Your task to perform on an android device: Show the shopping cart on bestbuy.com. Image 0: 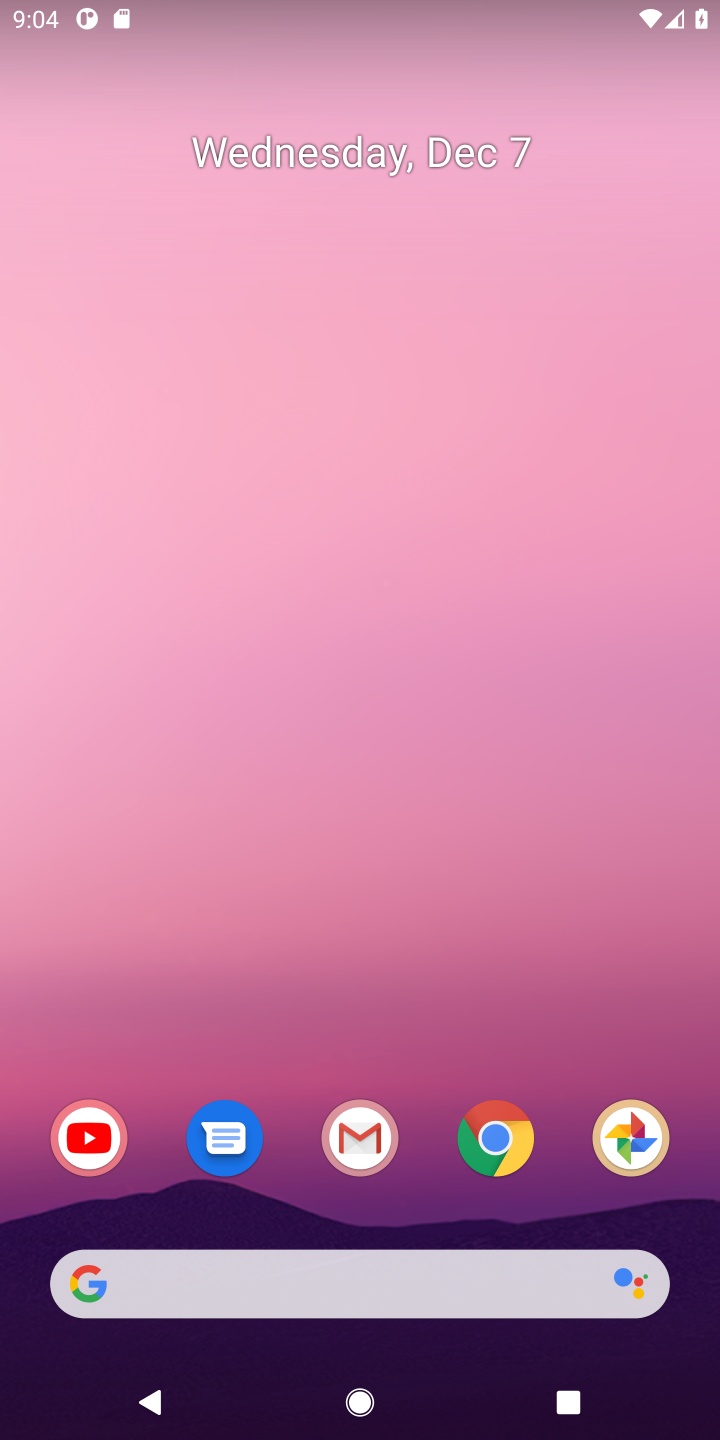
Step 0: press home button
Your task to perform on an android device: Show the shopping cart on bestbuy.com. Image 1: 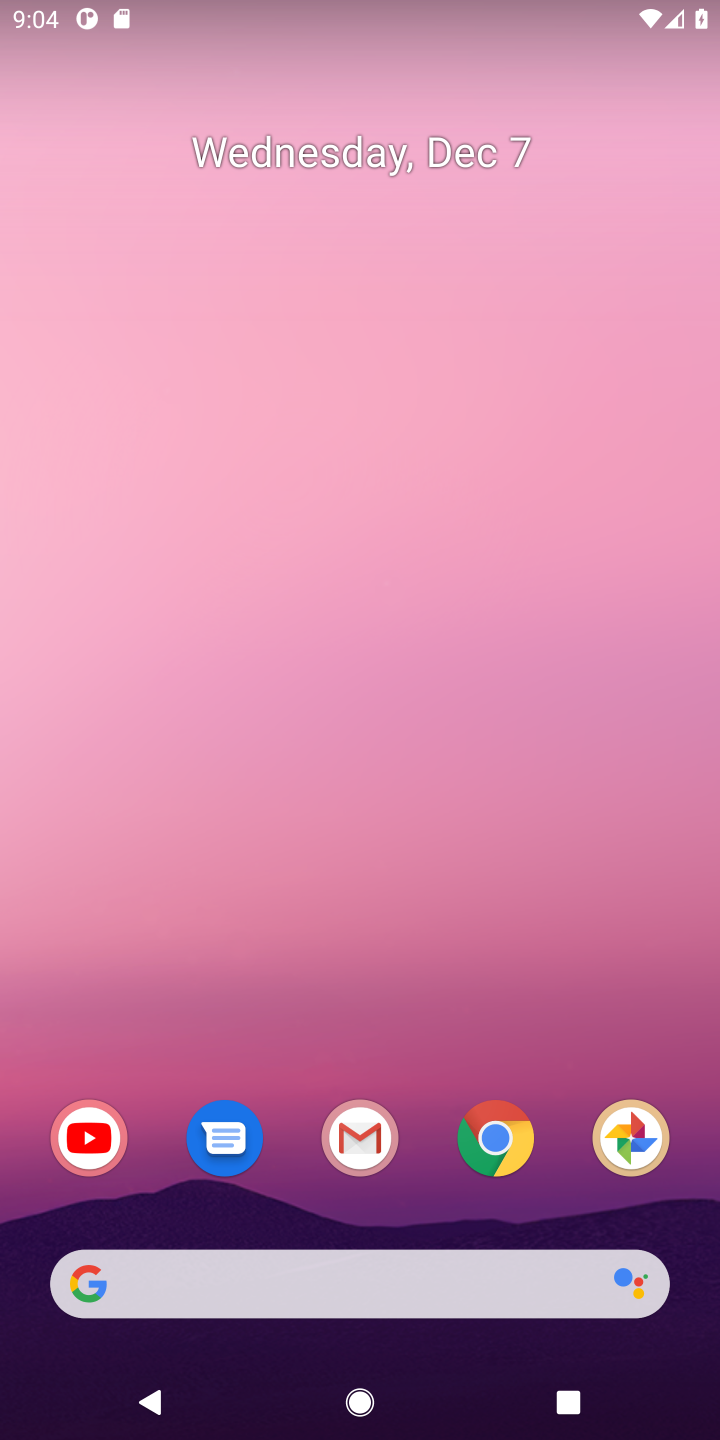
Step 1: click (117, 1287)
Your task to perform on an android device: Show the shopping cart on bestbuy.com. Image 2: 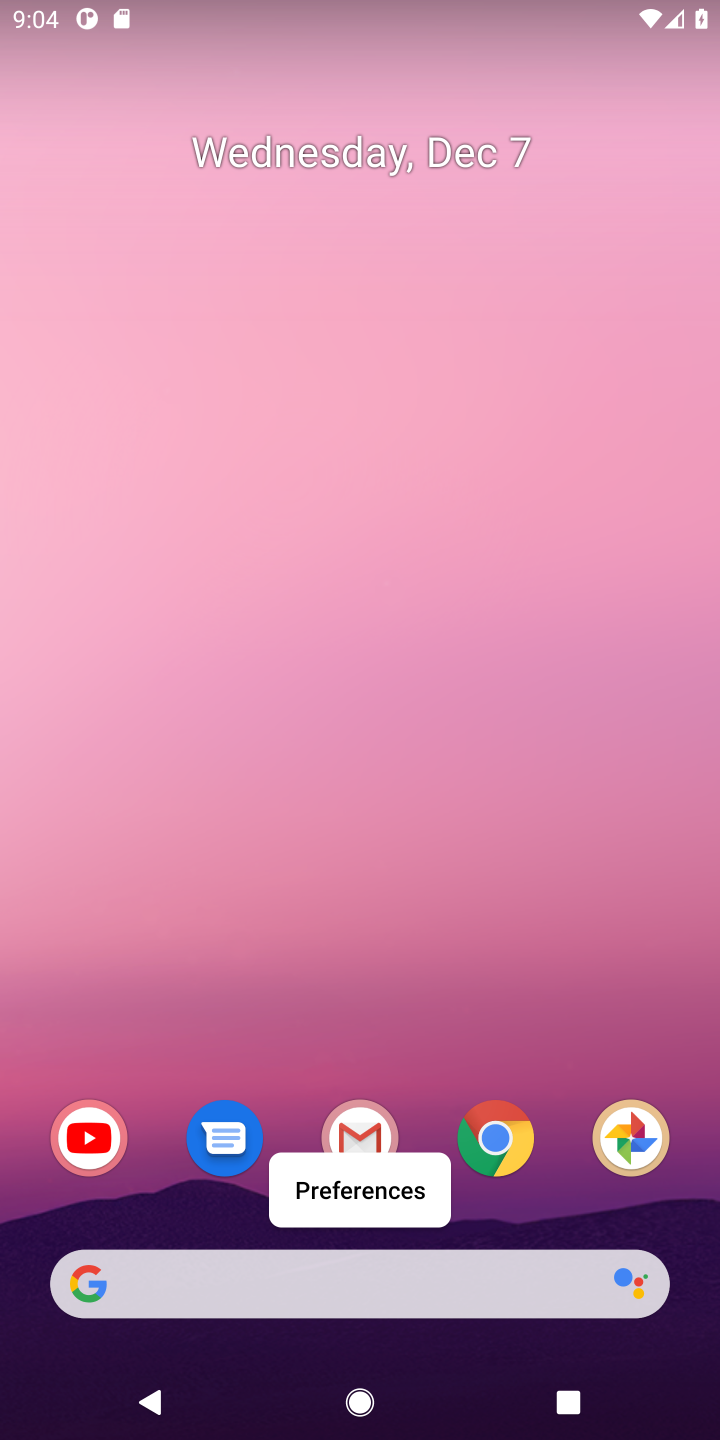
Step 2: click (164, 1291)
Your task to perform on an android device: Show the shopping cart on bestbuy.com. Image 3: 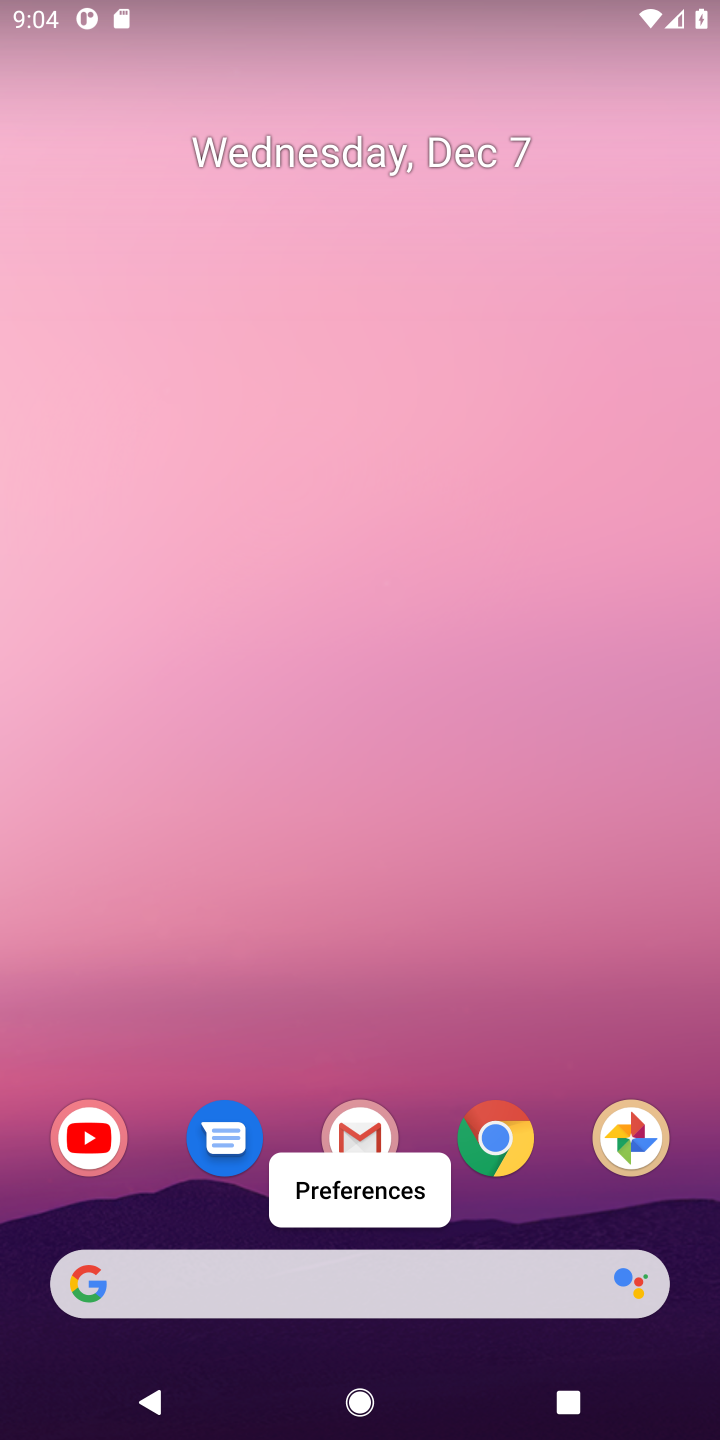
Step 3: click (140, 1293)
Your task to perform on an android device: Show the shopping cart on bestbuy.com. Image 4: 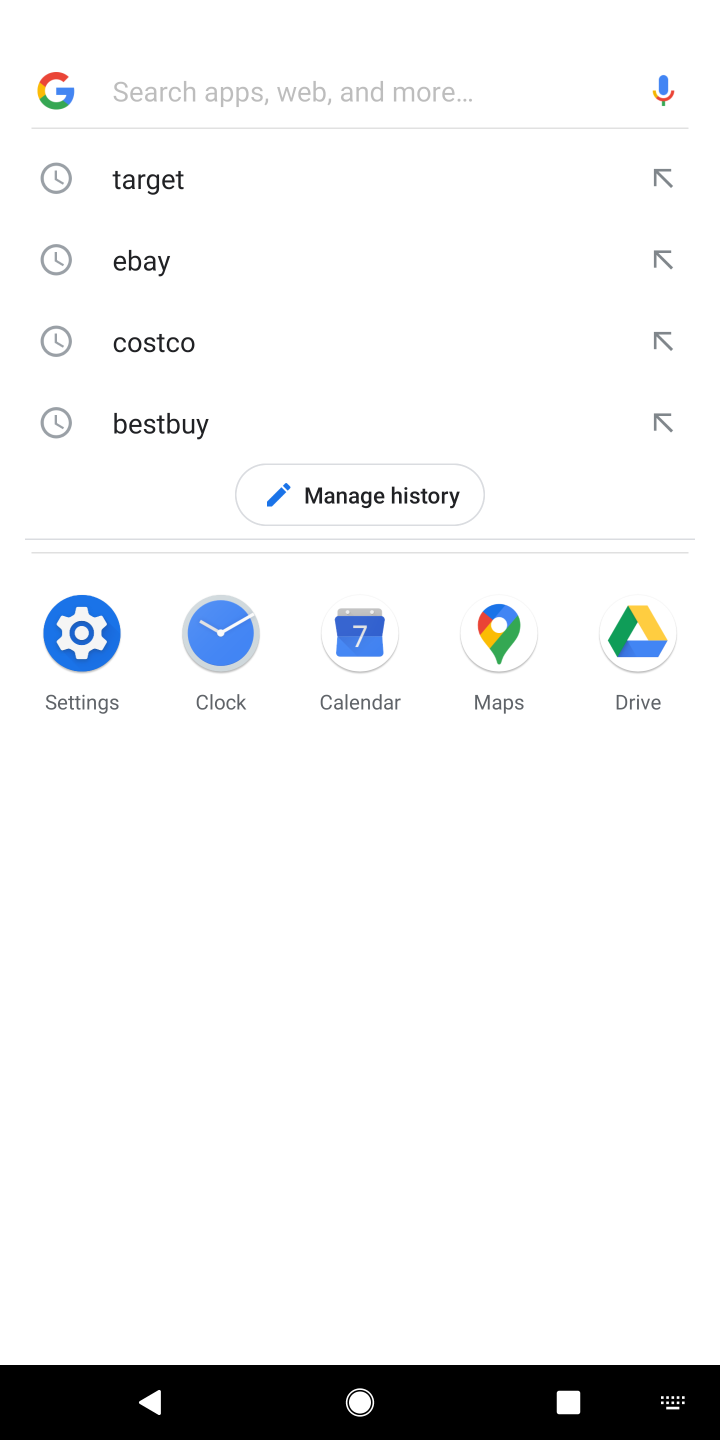
Step 4: type "bestbuy.com"
Your task to perform on an android device: Show the shopping cart on bestbuy.com. Image 5: 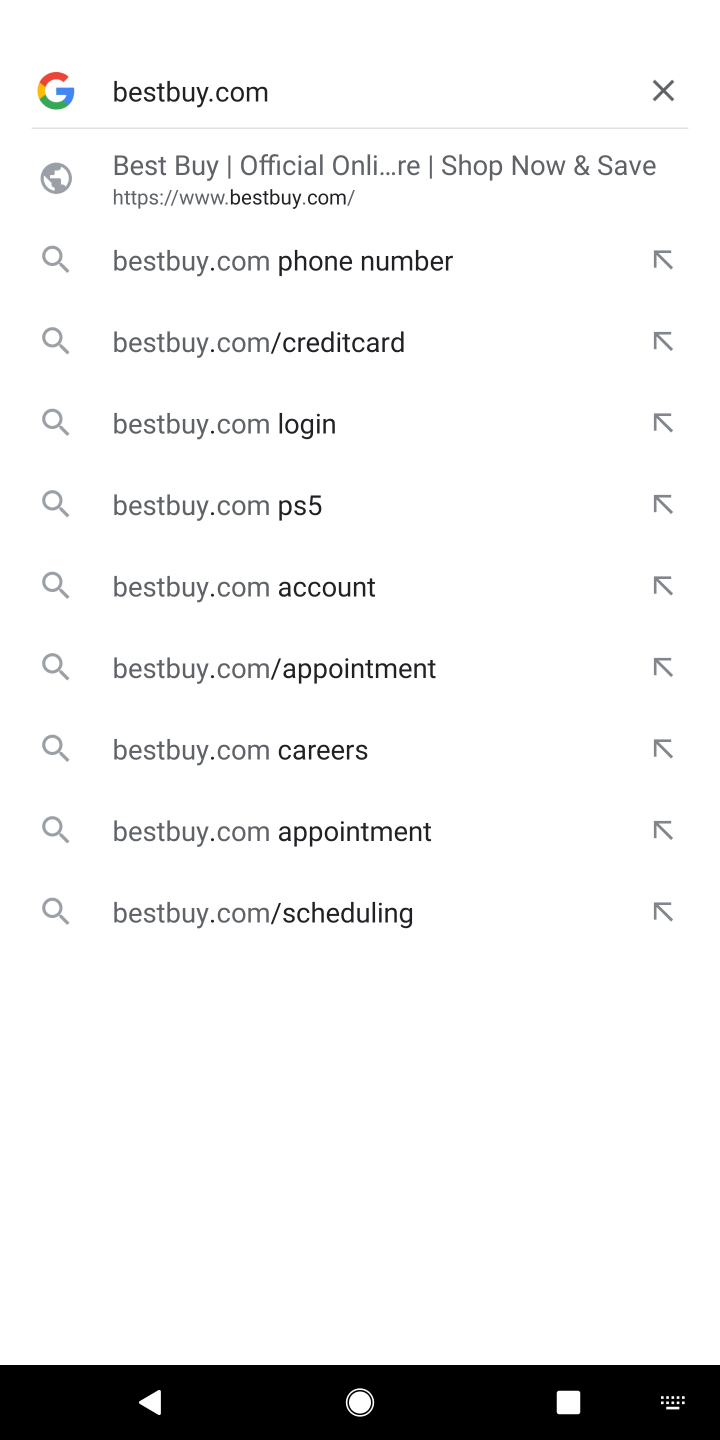
Step 5: press enter
Your task to perform on an android device: Show the shopping cart on bestbuy.com. Image 6: 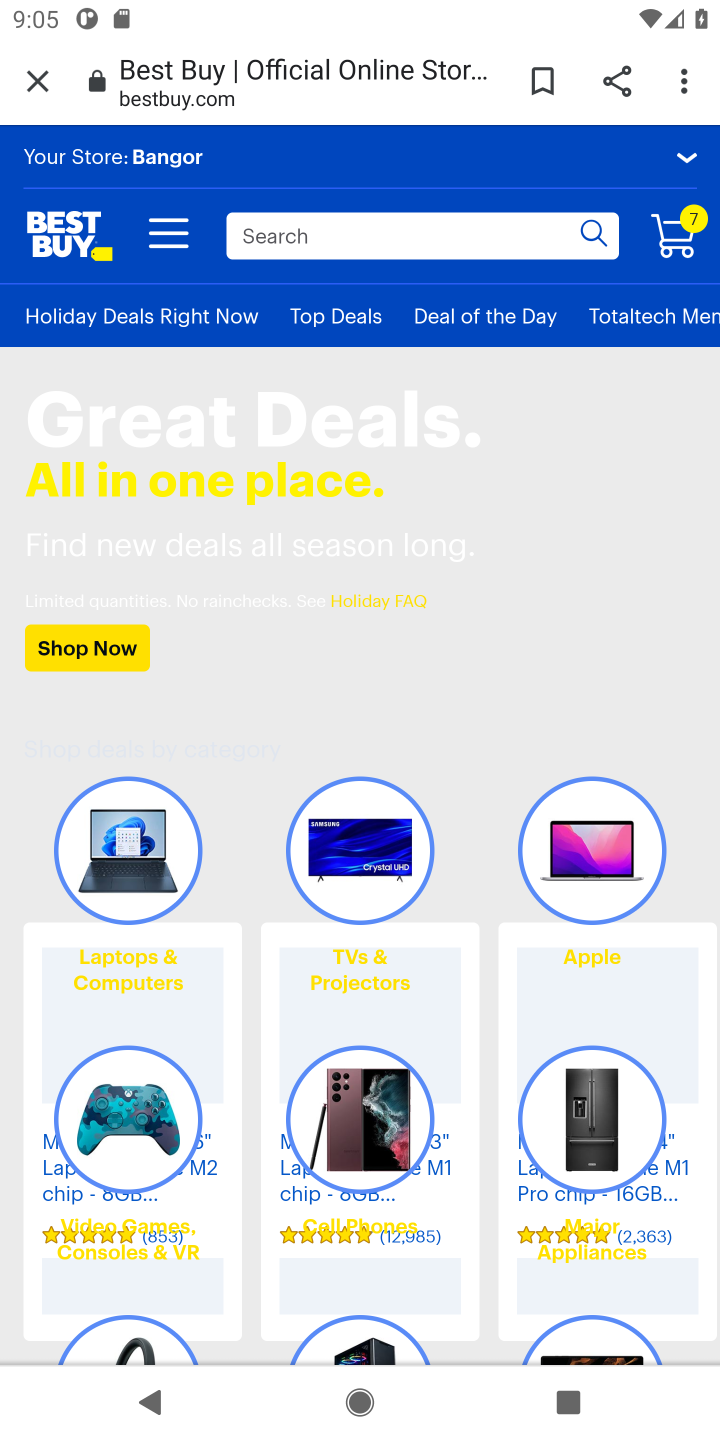
Step 6: click (687, 243)
Your task to perform on an android device: Show the shopping cart on bestbuy.com. Image 7: 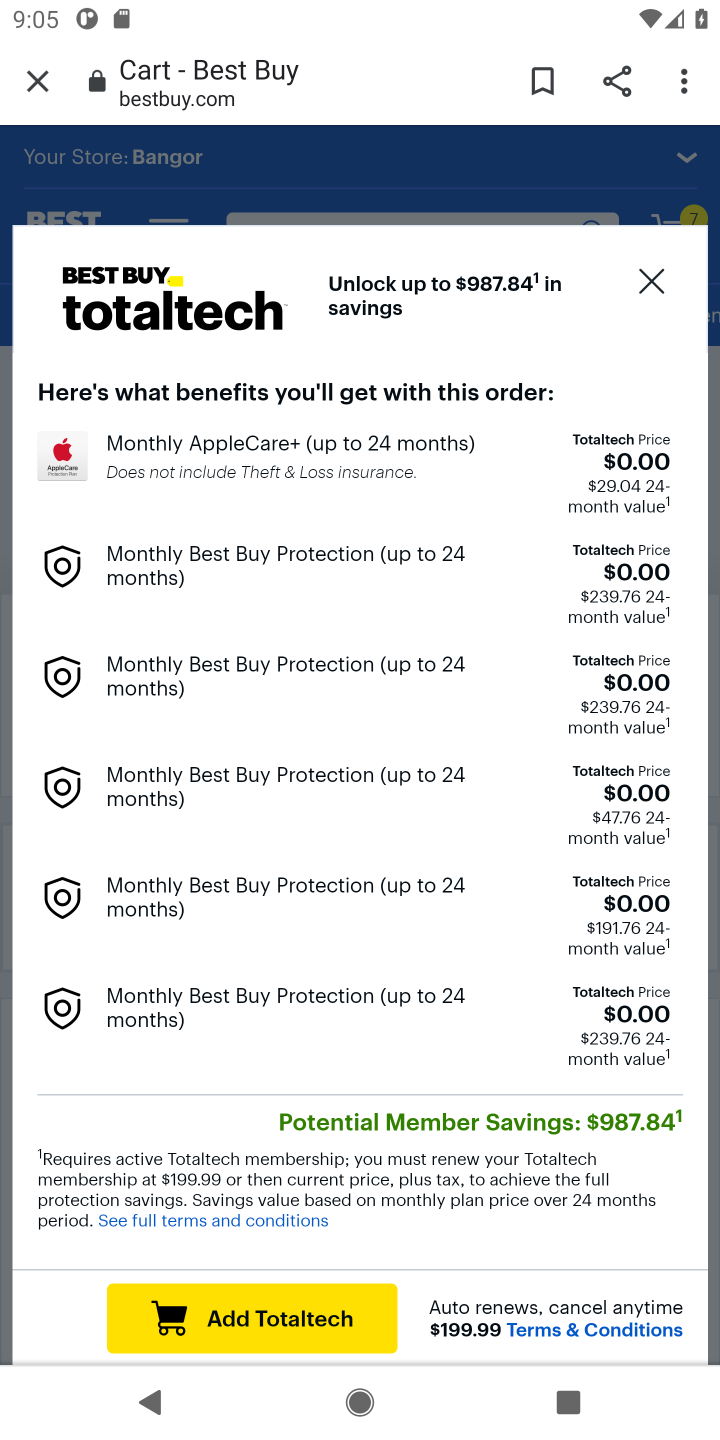
Step 7: click (649, 278)
Your task to perform on an android device: Show the shopping cart on bestbuy.com. Image 8: 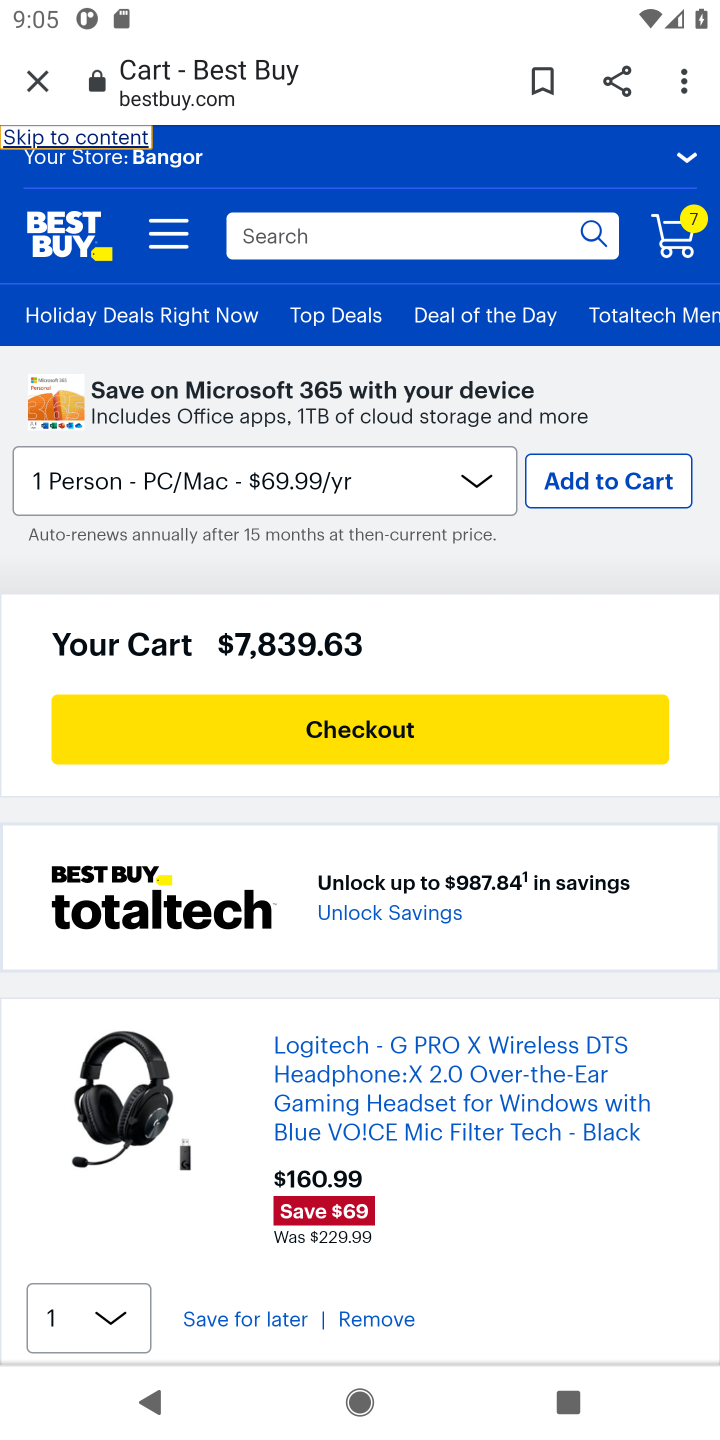
Step 8: task complete